Your task to perform on an android device: set default search engine in the chrome app Image 0: 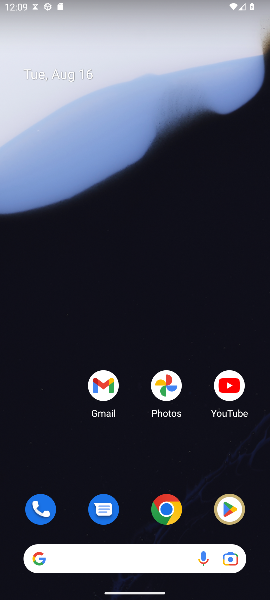
Step 0: click (165, 497)
Your task to perform on an android device: set default search engine in the chrome app Image 1: 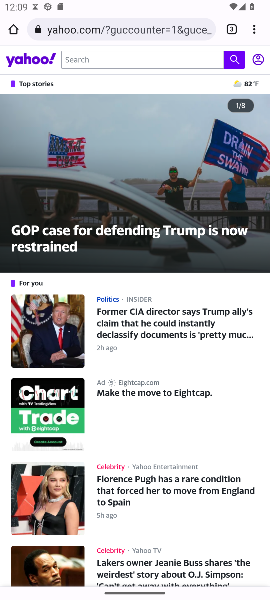
Step 1: drag from (256, 31) to (162, 376)
Your task to perform on an android device: set default search engine in the chrome app Image 2: 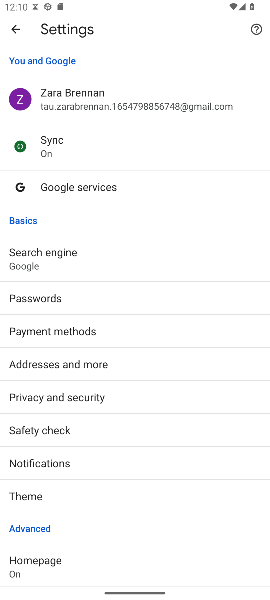
Step 2: click (11, 263)
Your task to perform on an android device: set default search engine in the chrome app Image 3: 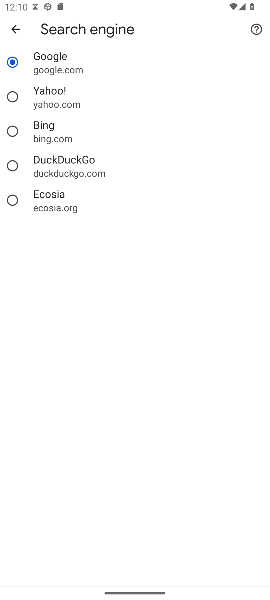
Step 3: click (12, 135)
Your task to perform on an android device: set default search engine in the chrome app Image 4: 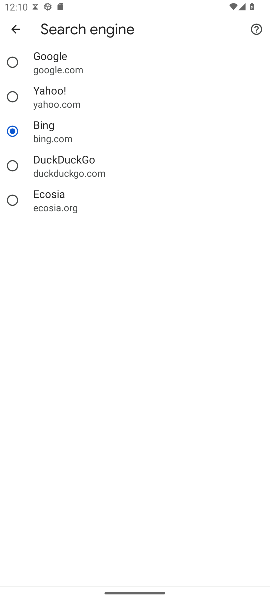
Step 4: task complete